Your task to perform on an android device: change your default location settings in chrome Image 0: 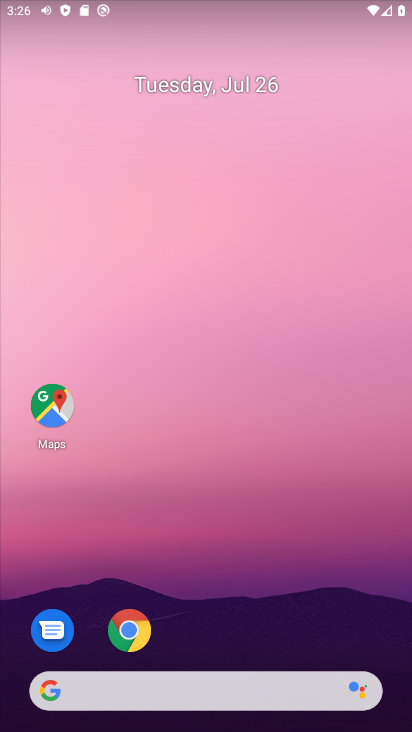
Step 0: press back button
Your task to perform on an android device: change your default location settings in chrome Image 1: 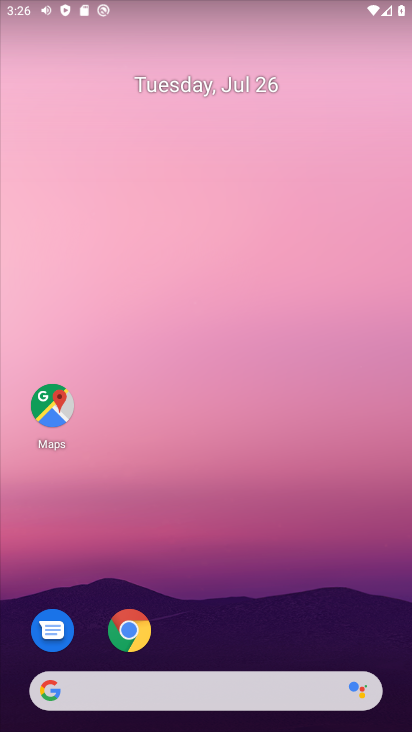
Step 1: click (184, 139)
Your task to perform on an android device: change your default location settings in chrome Image 2: 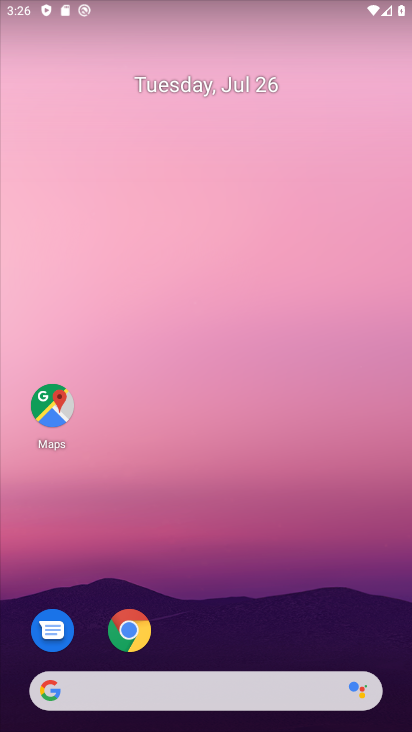
Step 2: drag from (243, 608) to (209, 395)
Your task to perform on an android device: change your default location settings in chrome Image 3: 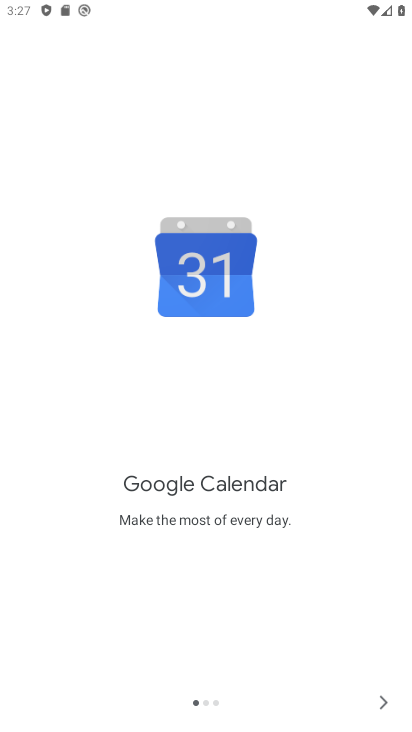
Step 3: press back button
Your task to perform on an android device: change your default location settings in chrome Image 4: 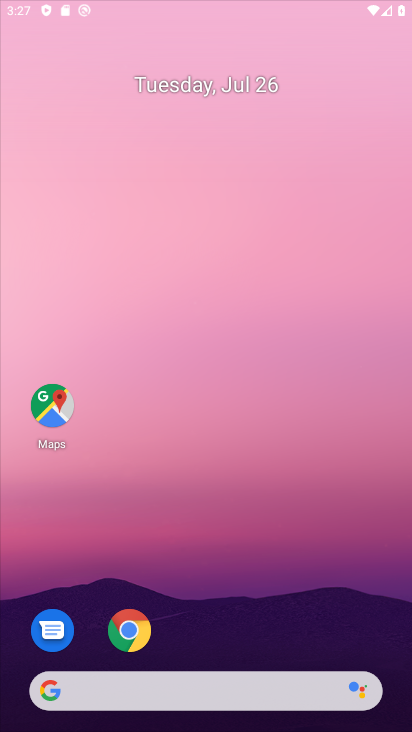
Step 4: click (383, 701)
Your task to perform on an android device: change your default location settings in chrome Image 5: 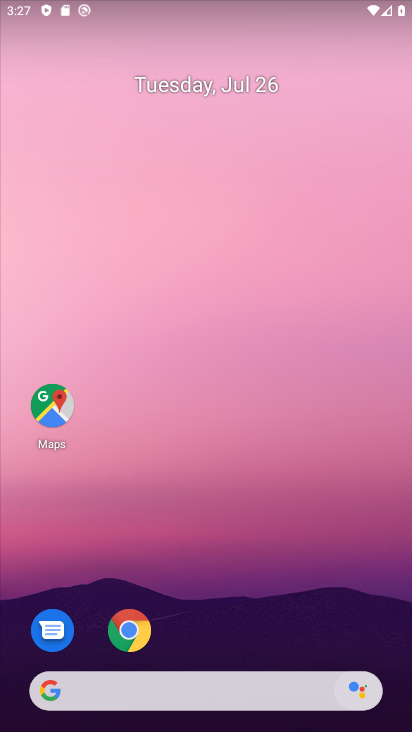
Step 5: drag from (211, 581) to (158, 181)
Your task to perform on an android device: change your default location settings in chrome Image 6: 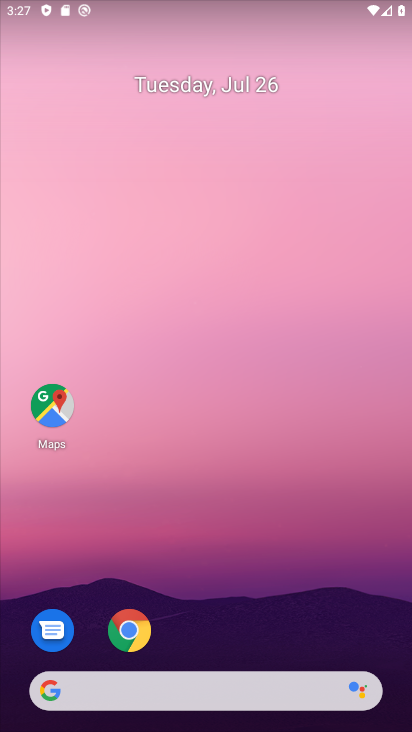
Step 6: drag from (220, 487) to (246, 216)
Your task to perform on an android device: change your default location settings in chrome Image 7: 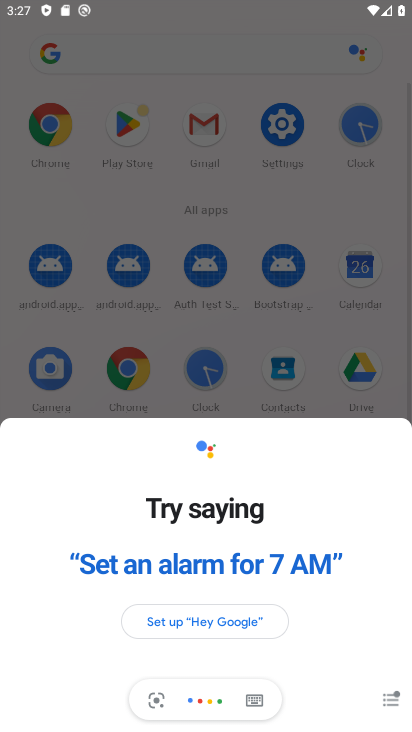
Step 7: click (269, 318)
Your task to perform on an android device: change your default location settings in chrome Image 8: 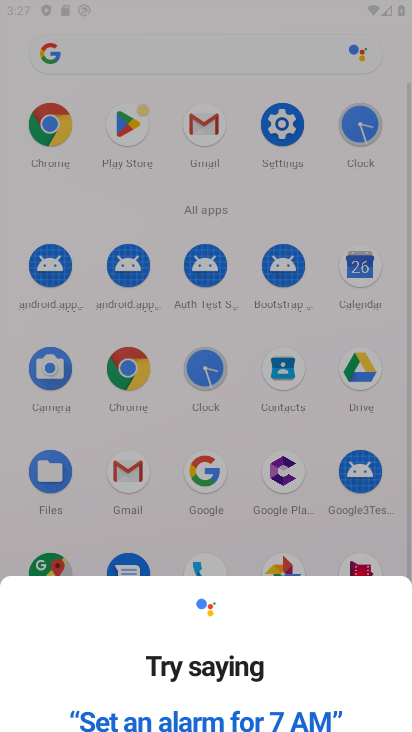
Step 8: click (269, 318)
Your task to perform on an android device: change your default location settings in chrome Image 9: 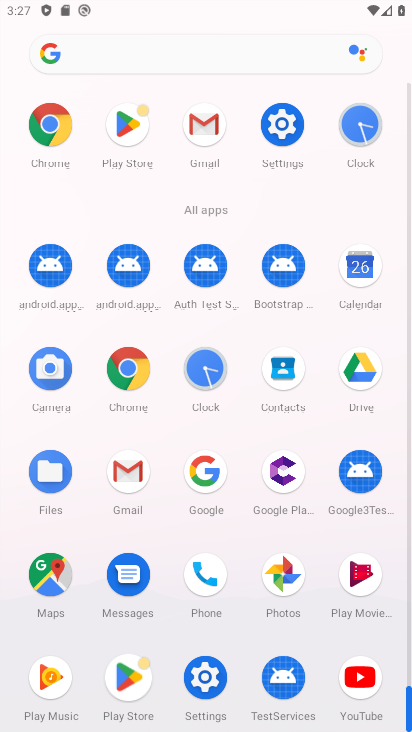
Step 9: click (269, 318)
Your task to perform on an android device: change your default location settings in chrome Image 10: 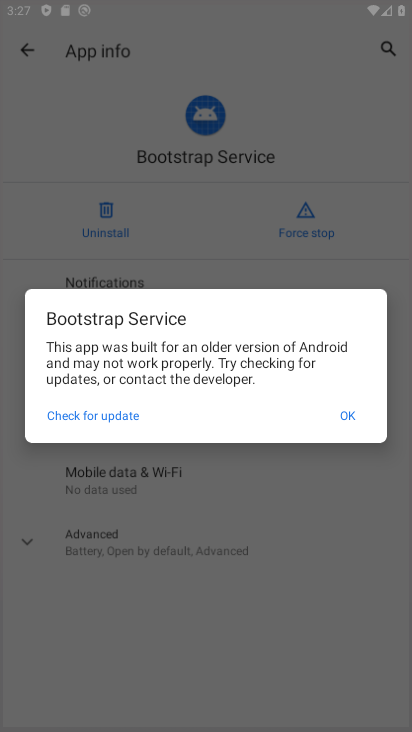
Step 10: click (347, 414)
Your task to perform on an android device: change your default location settings in chrome Image 11: 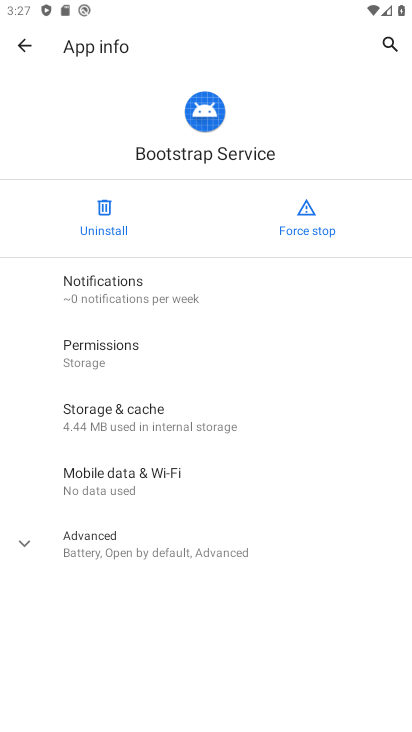
Step 11: click (16, 45)
Your task to perform on an android device: change your default location settings in chrome Image 12: 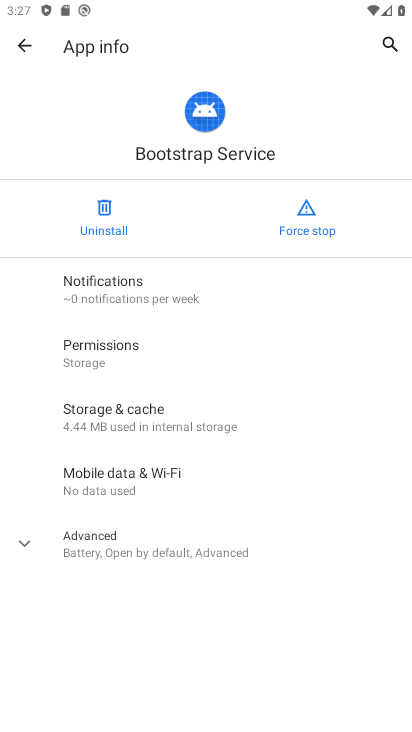
Step 12: click (26, 44)
Your task to perform on an android device: change your default location settings in chrome Image 13: 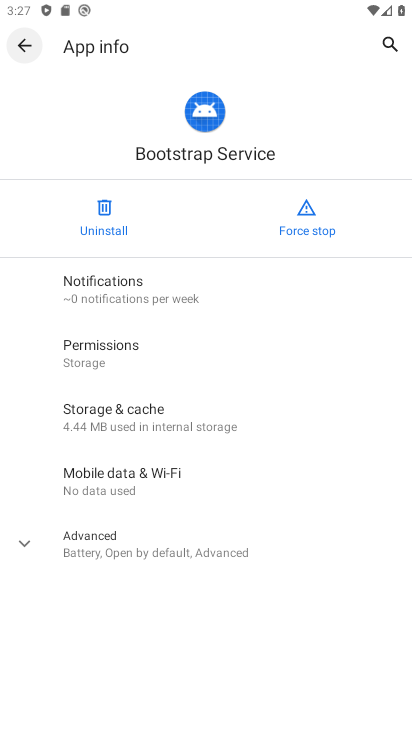
Step 13: click (24, 44)
Your task to perform on an android device: change your default location settings in chrome Image 14: 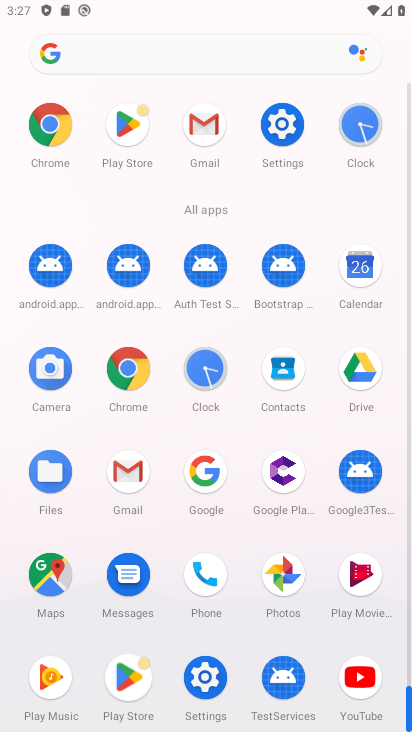
Step 14: click (45, 132)
Your task to perform on an android device: change your default location settings in chrome Image 15: 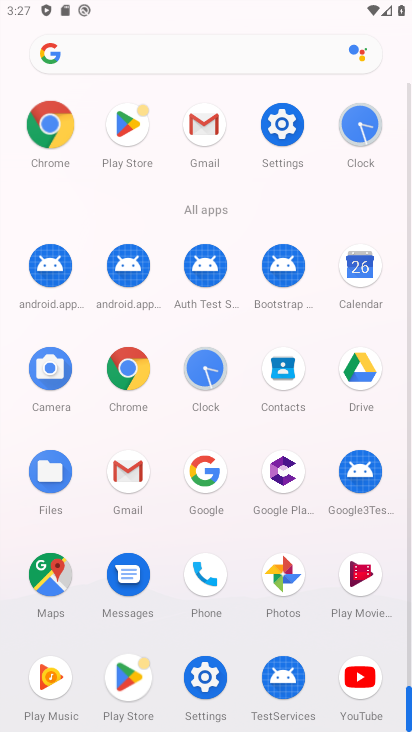
Step 15: click (50, 134)
Your task to perform on an android device: change your default location settings in chrome Image 16: 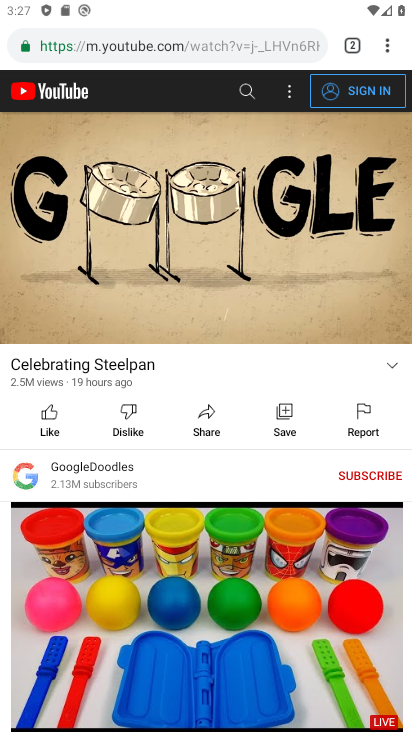
Step 16: drag from (387, 45) to (209, 501)
Your task to perform on an android device: change your default location settings in chrome Image 17: 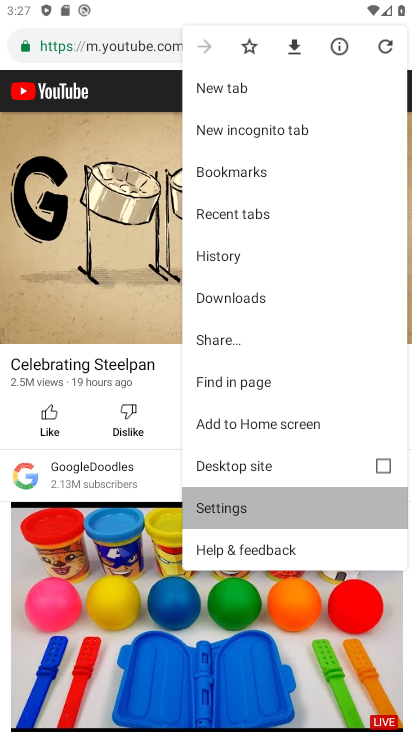
Step 17: click (210, 502)
Your task to perform on an android device: change your default location settings in chrome Image 18: 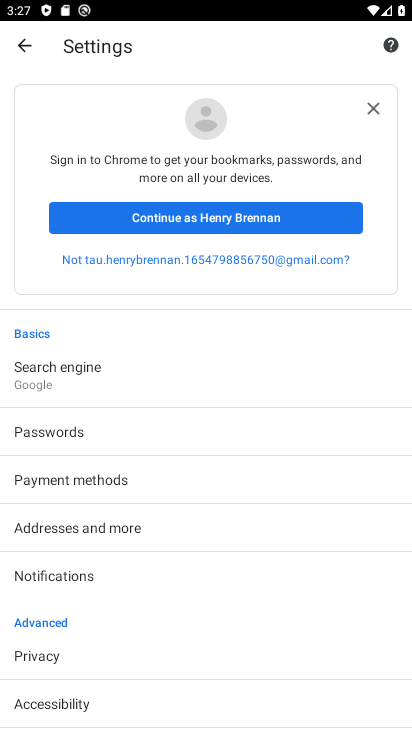
Step 18: drag from (67, 646) to (58, 267)
Your task to perform on an android device: change your default location settings in chrome Image 19: 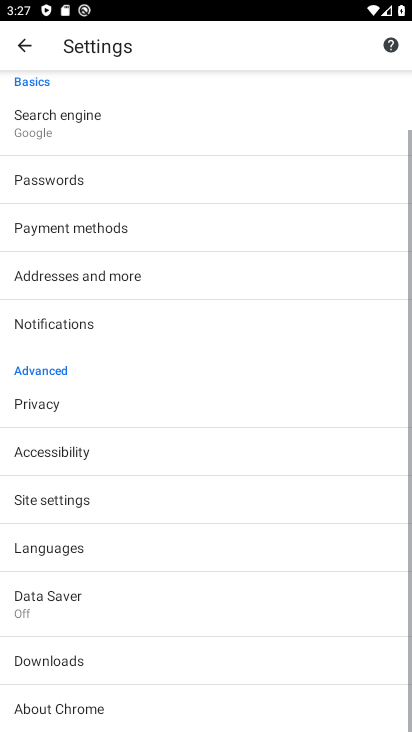
Step 19: drag from (134, 577) to (164, 243)
Your task to perform on an android device: change your default location settings in chrome Image 20: 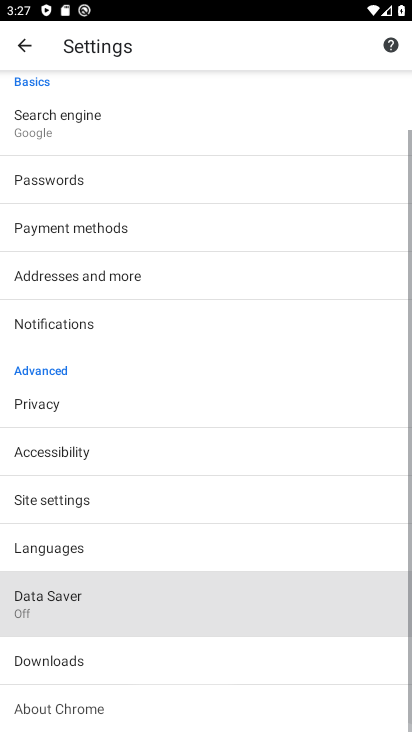
Step 20: drag from (166, 491) to (197, 280)
Your task to perform on an android device: change your default location settings in chrome Image 21: 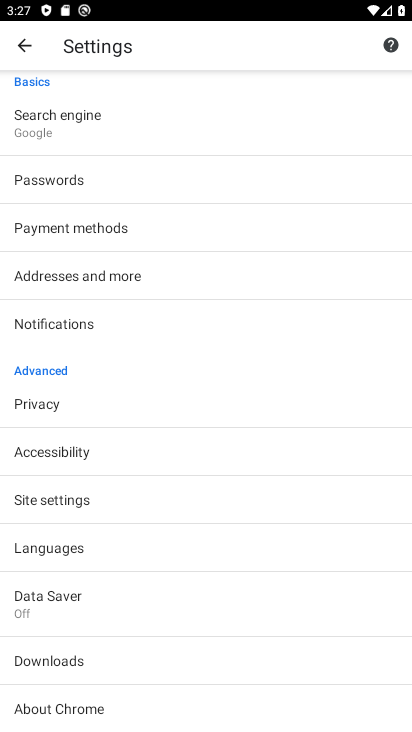
Step 21: click (47, 543)
Your task to perform on an android device: change your default location settings in chrome Image 22: 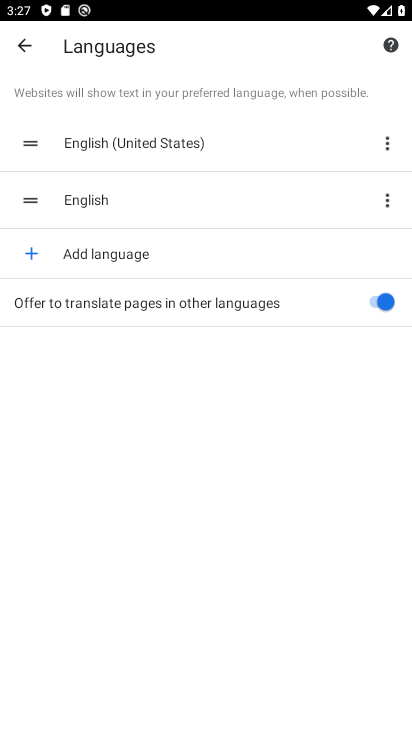
Step 22: click (22, 37)
Your task to perform on an android device: change your default location settings in chrome Image 23: 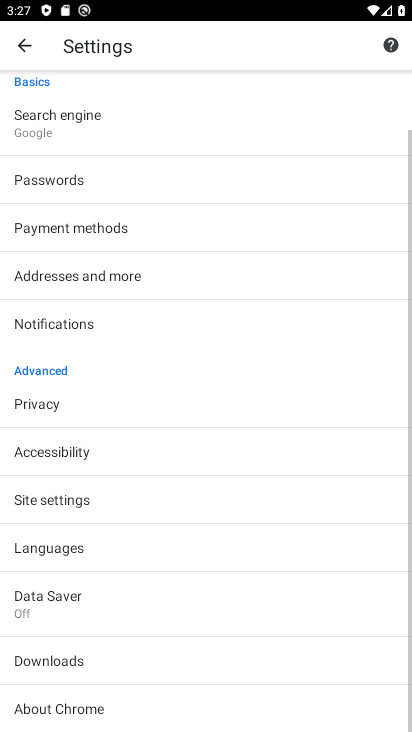
Step 23: click (45, 508)
Your task to perform on an android device: change your default location settings in chrome Image 24: 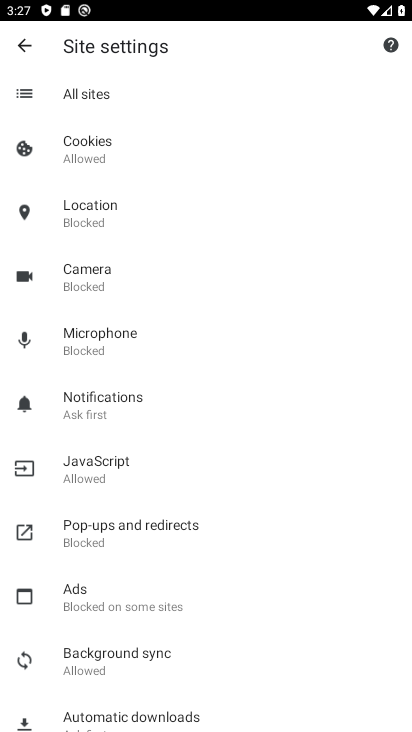
Step 24: click (84, 202)
Your task to perform on an android device: change your default location settings in chrome Image 25: 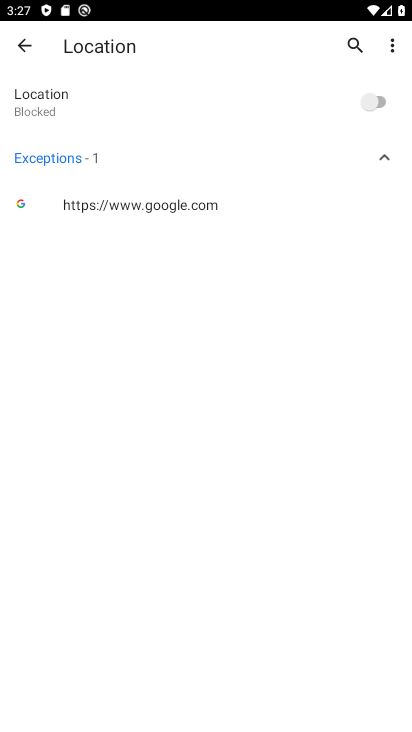
Step 25: click (363, 97)
Your task to perform on an android device: change your default location settings in chrome Image 26: 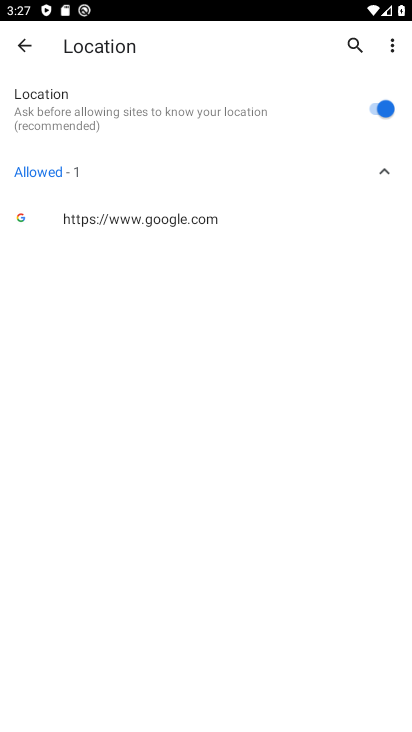
Step 26: task complete